Your task to perform on an android device: add a contact in the contacts app Image 0: 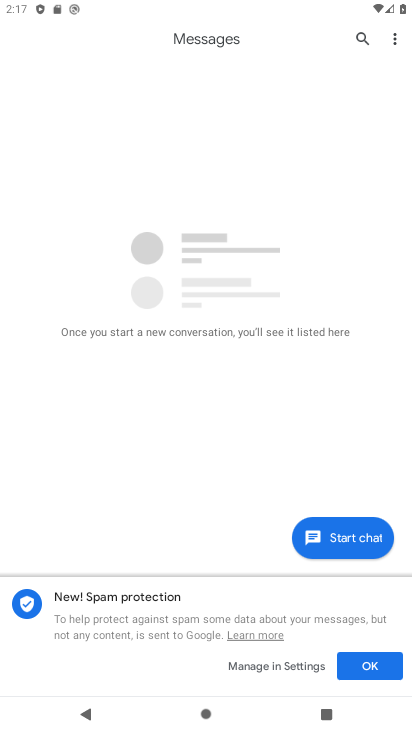
Step 0: press home button
Your task to perform on an android device: add a contact in the contacts app Image 1: 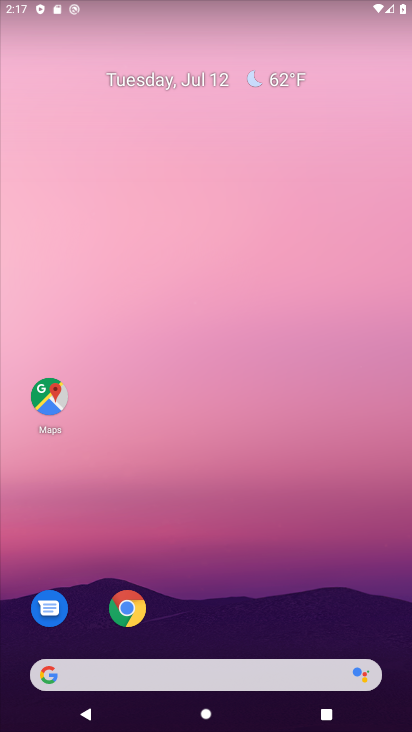
Step 1: drag from (116, 681) to (280, 154)
Your task to perform on an android device: add a contact in the contacts app Image 2: 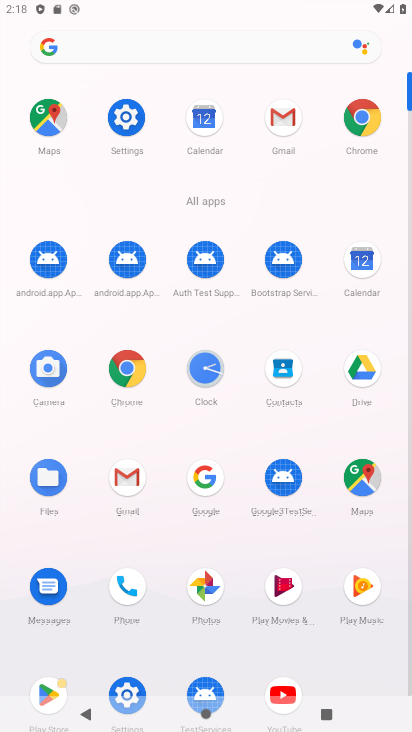
Step 2: click (277, 360)
Your task to perform on an android device: add a contact in the contacts app Image 3: 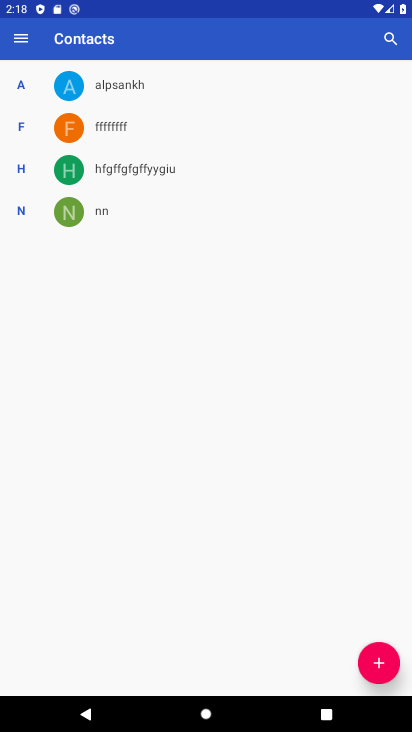
Step 3: click (371, 665)
Your task to perform on an android device: add a contact in the contacts app Image 4: 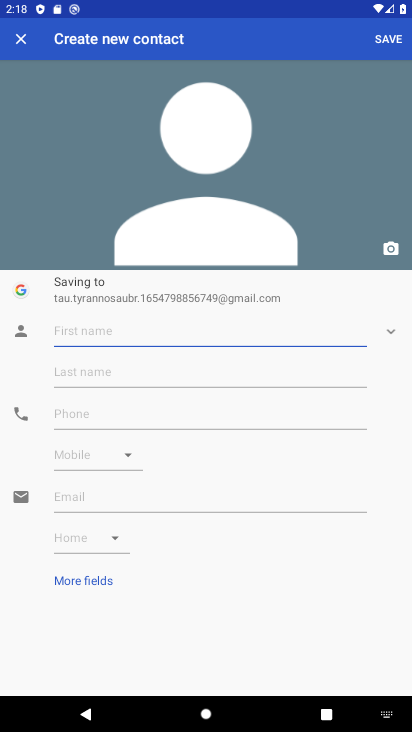
Step 4: type "nhfyrgtbfn"
Your task to perform on an android device: add a contact in the contacts app Image 5: 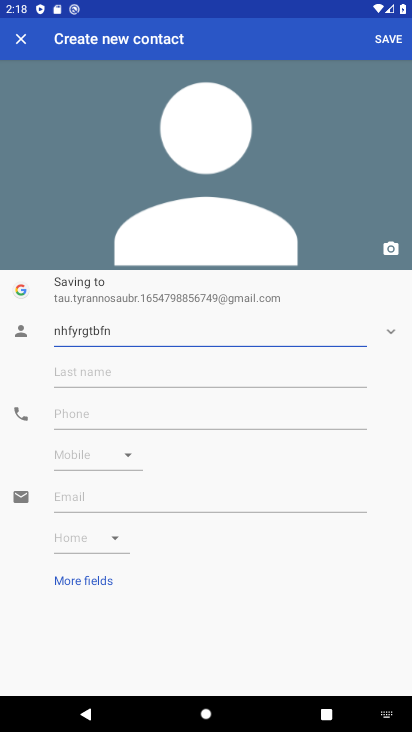
Step 5: click (91, 413)
Your task to perform on an android device: add a contact in the contacts app Image 6: 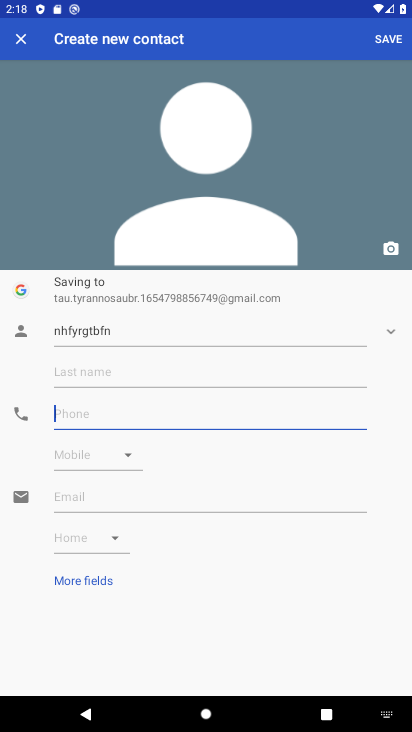
Step 6: type "12343234"
Your task to perform on an android device: add a contact in the contacts app Image 7: 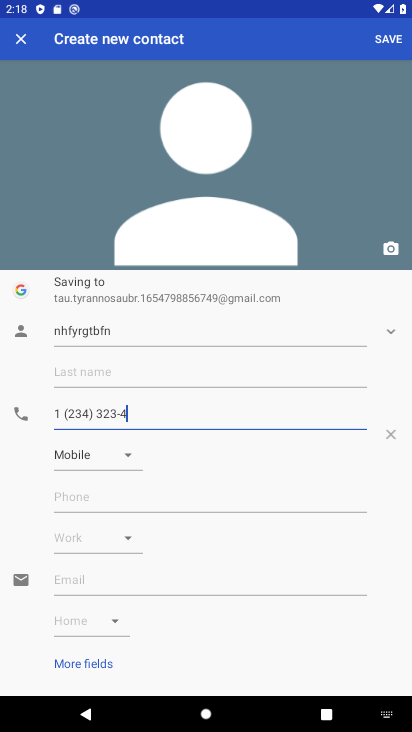
Step 7: click (397, 40)
Your task to perform on an android device: add a contact in the contacts app Image 8: 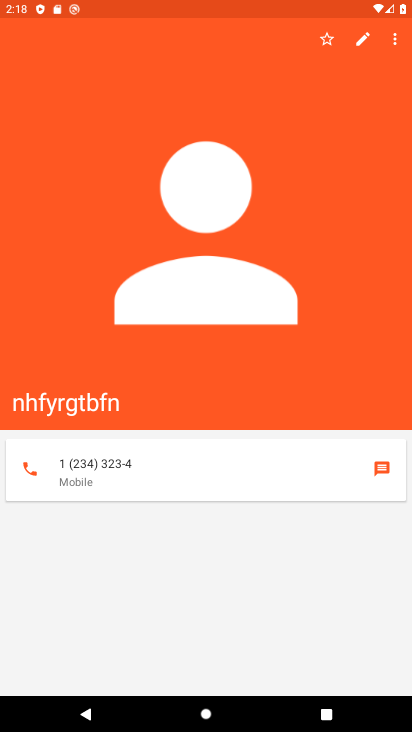
Step 8: task complete